Your task to perform on an android device: Is it going to rain this weekend? Image 0: 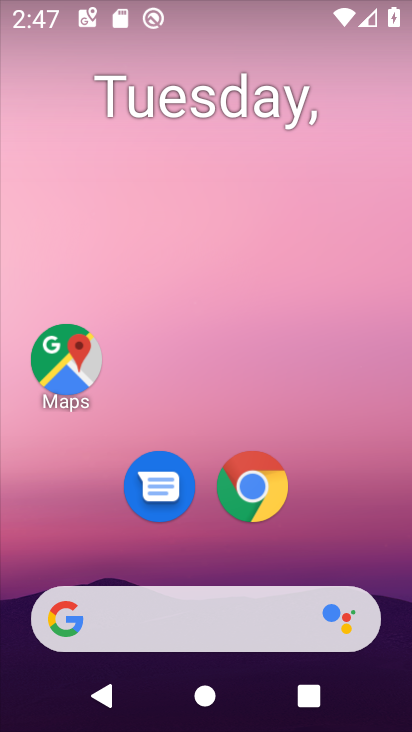
Step 0: drag from (8, 246) to (318, 257)
Your task to perform on an android device: Is it going to rain this weekend? Image 1: 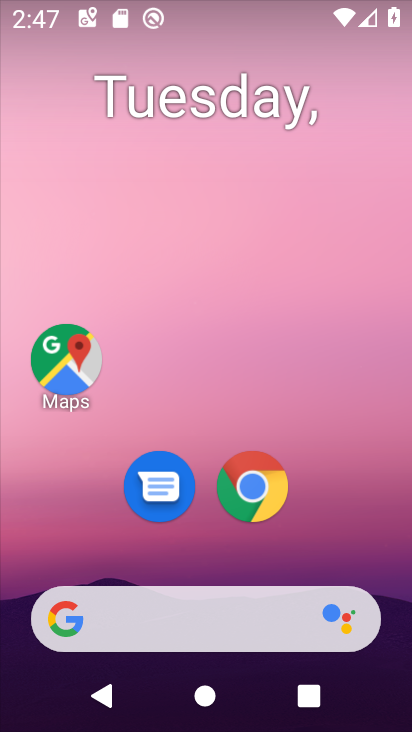
Step 1: drag from (6, 233) to (352, 253)
Your task to perform on an android device: Is it going to rain this weekend? Image 2: 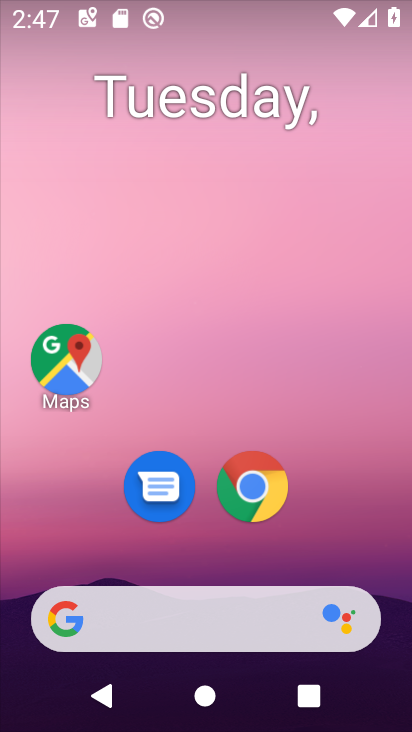
Step 2: drag from (4, 215) to (408, 221)
Your task to perform on an android device: Is it going to rain this weekend? Image 3: 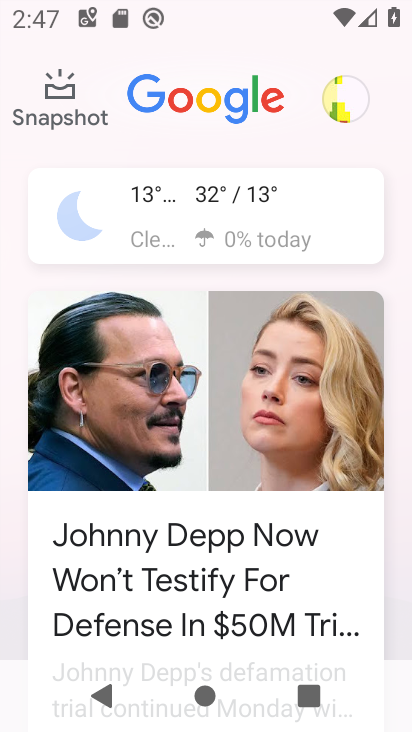
Step 3: click (223, 211)
Your task to perform on an android device: Is it going to rain this weekend? Image 4: 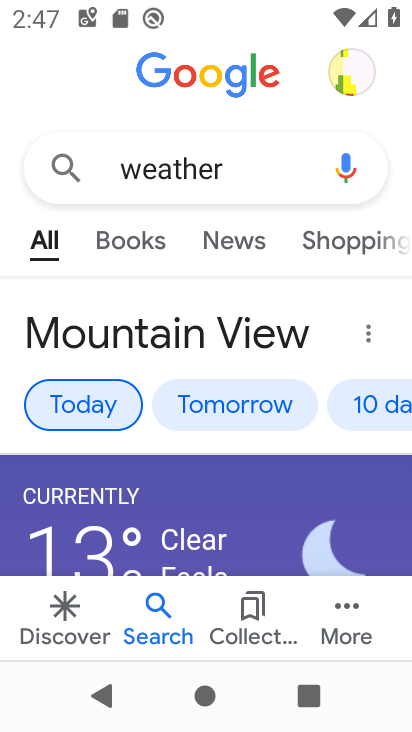
Step 4: click (368, 390)
Your task to perform on an android device: Is it going to rain this weekend? Image 5: 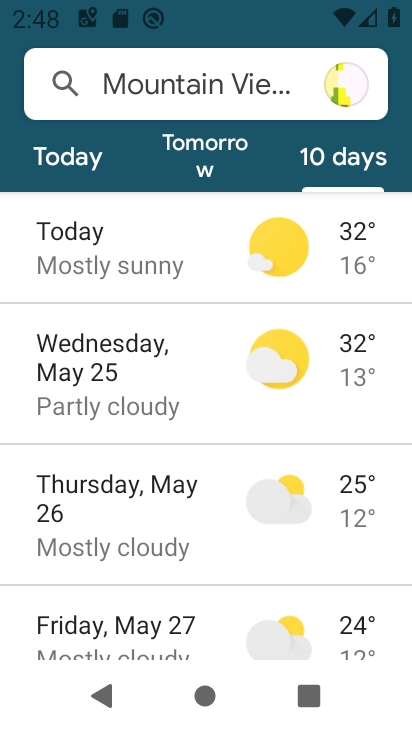
Step 5: task complete